Your task to perform on an android device: Go to Amazon Image 0: 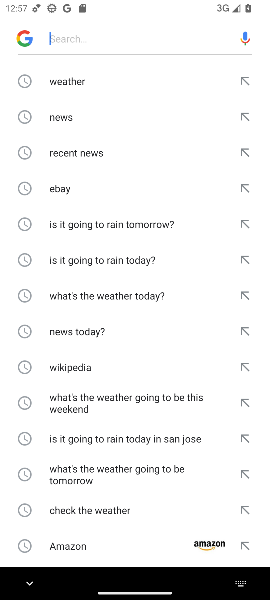
Step 0: press home button
Your task to perform on an android device: Go to Amazon Image 1: 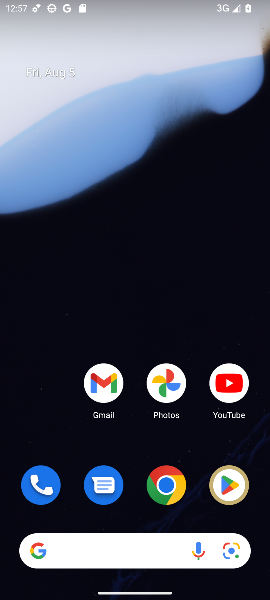
Step 1: click (165, 484)
Your task to perform on an android device: Go to Amazon Image 2: 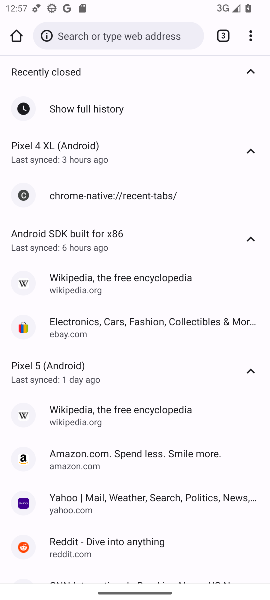
Step 2: click (253, 36)
Your task to perform on an android device: Go to Amazon Image 3: 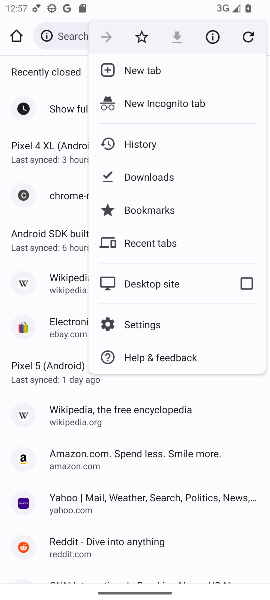
Step 3: click (152, 67)
Your task to perform on an android device: Go to Amazon Image 4: 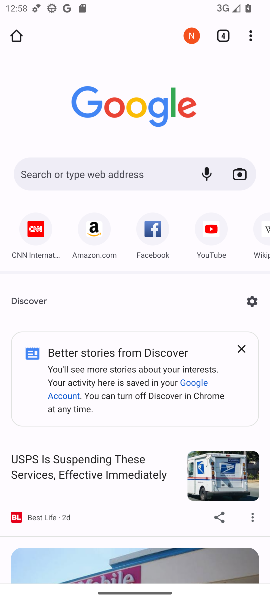
Step 4: click (91, 226)
Your task to perform on an android device: Go to Amazon Image 5: 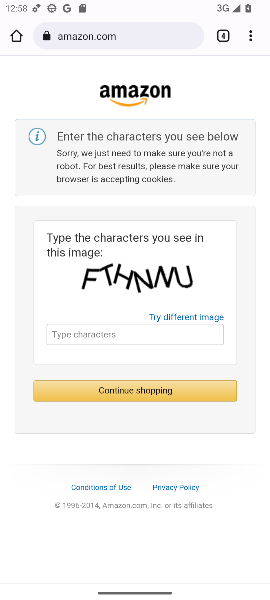
Step 5: task complete